Your task to perform on an android device: check battery use Image 0: 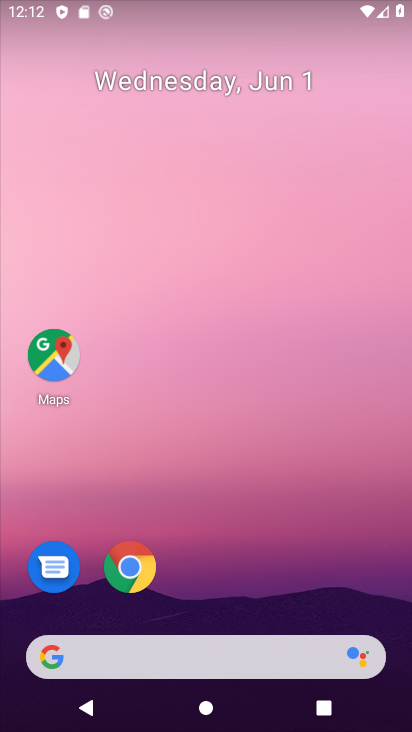
Step 0: click (230, 172)
Your task to perform on an android device: check battery use Image 1: 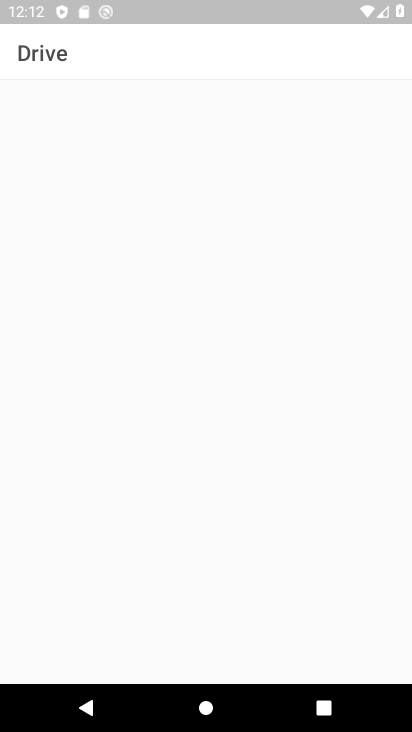
Step 1: press home button
Your task to perform on an android device: check battery use Image 2: 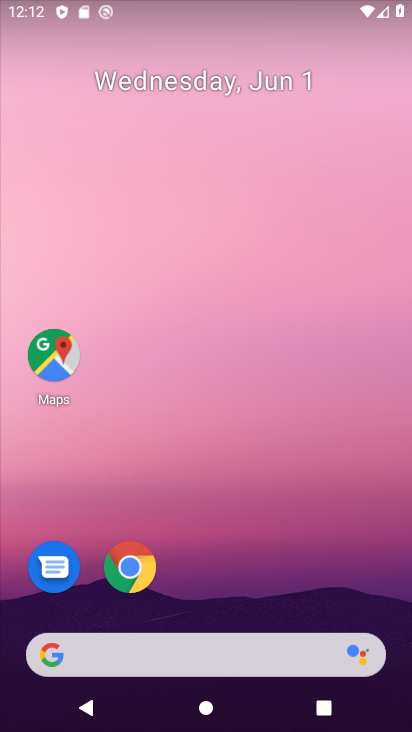
Step 2: drag from (297, 607) to (214, 101)
Your task to perform on an android device: check battery use Image 3: 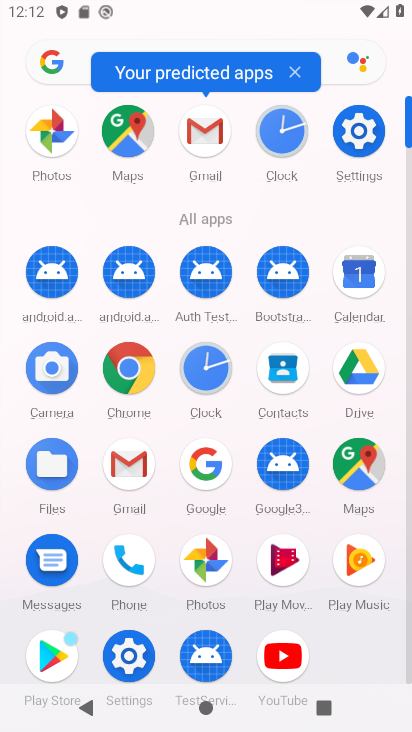
Step 3: click (365, 128)
Your task to perform on an android device: check battery use Image 4: 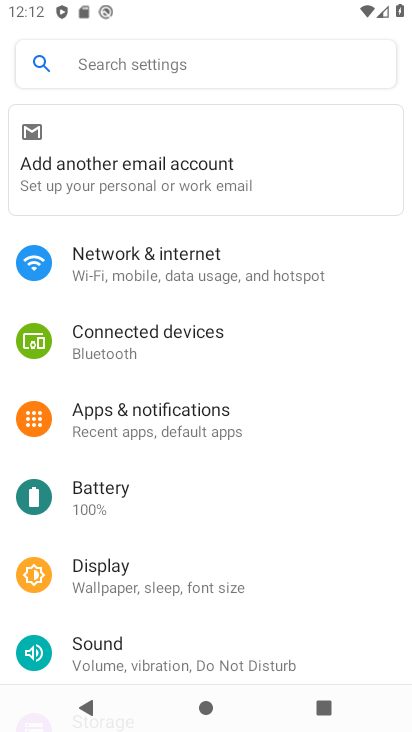
Step 4: click (206, 515)
Your task to perform on an android device: check battery use Image 5: 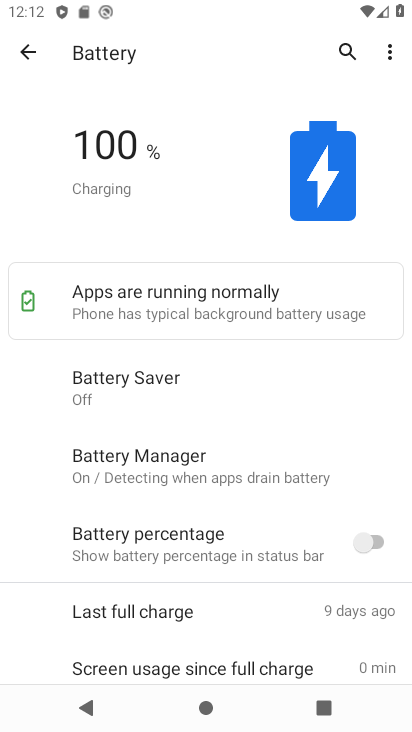
Step 5: drag from (272, 604) to (218, 447)
Your task to perform on an android device: check battery use Image 6: 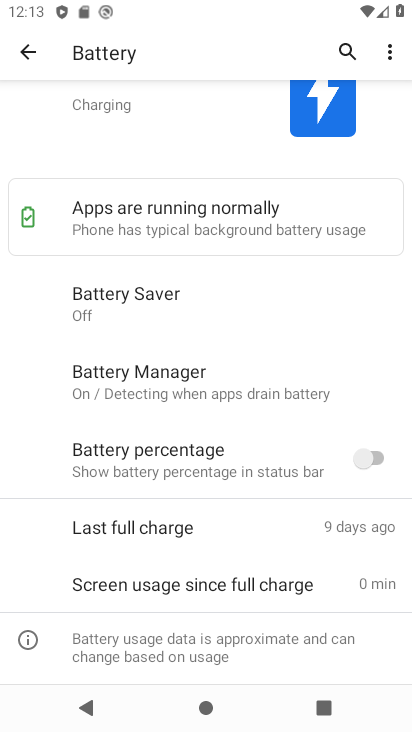
Step 6: click (388, 54)
Your task to perform on an android device: check battery use Image 7: 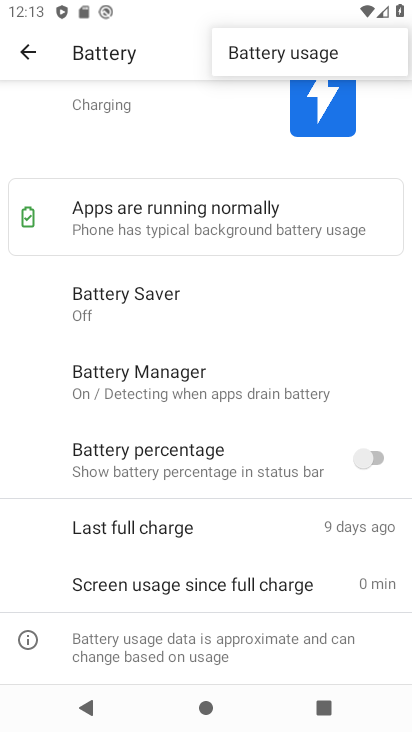
Step 7: click (269, 57)
Your task to perform on an android device: check battery use Image 8: 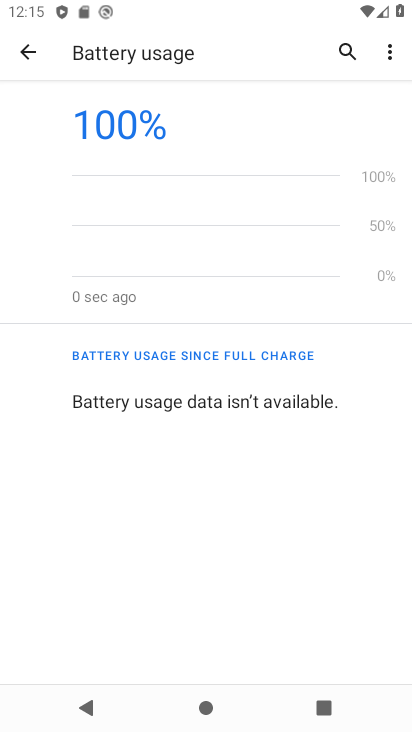
Step 8: task complete